Your task to perform on an android device: Open location settings Image 0: 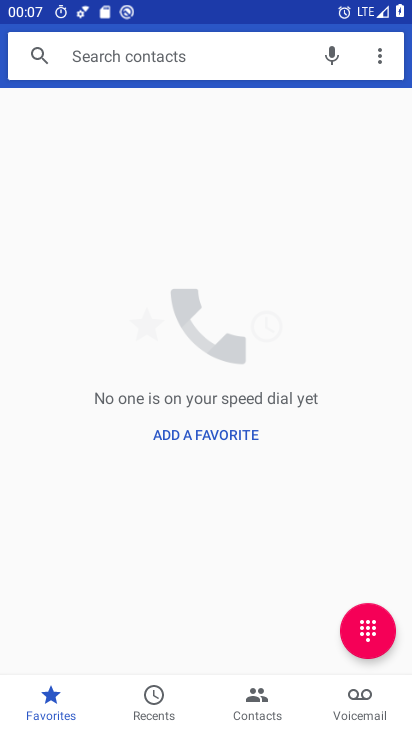
Step 0: press back button
Your task to perform on an android device: Open location settings Image 1: 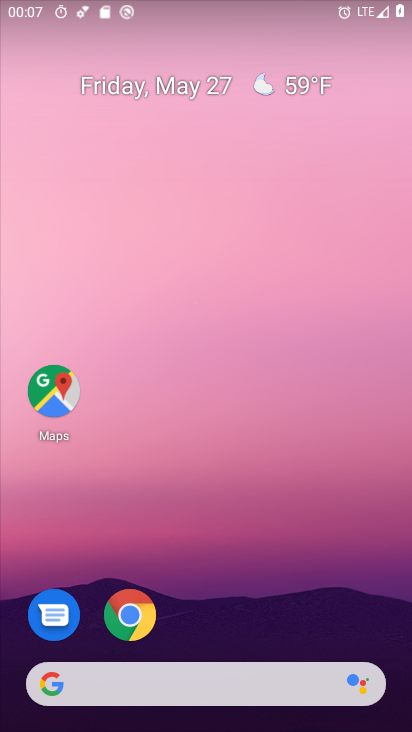
Step 1: drag from (286, 556) to (214, 4)
Your task to perform on an android device: Open location settings Image 2: 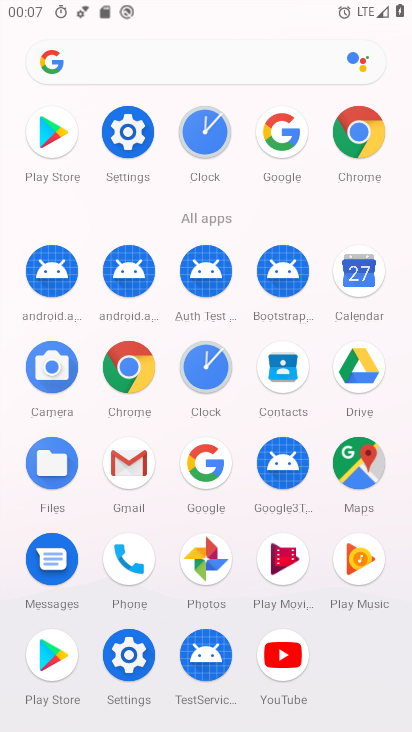
Step 2: click (125, 121)
Your task to perform on an android device: Open location settings Image 3: 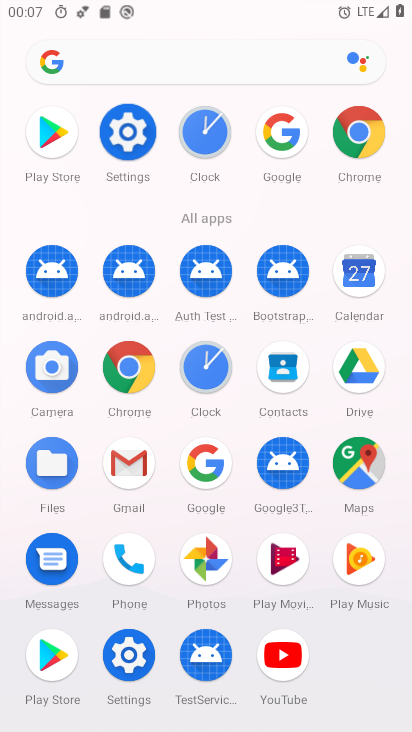
Step 3: click (126, 120)
Your task to perform on an android device: Open location settings Image 4: 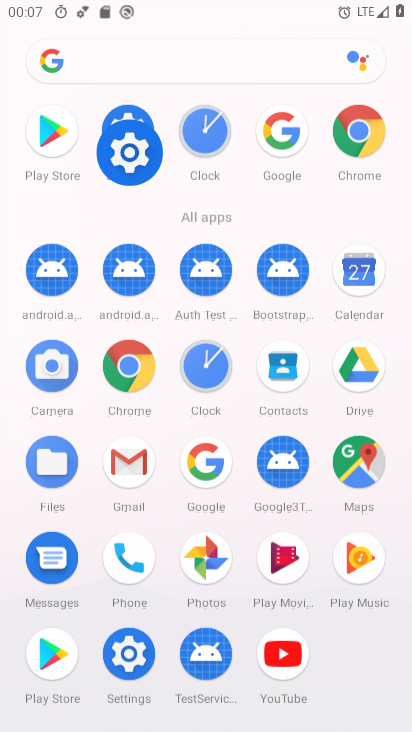
Step 4: click (126, 120)
Your task to perform on an android device: Open location settings Image 5: 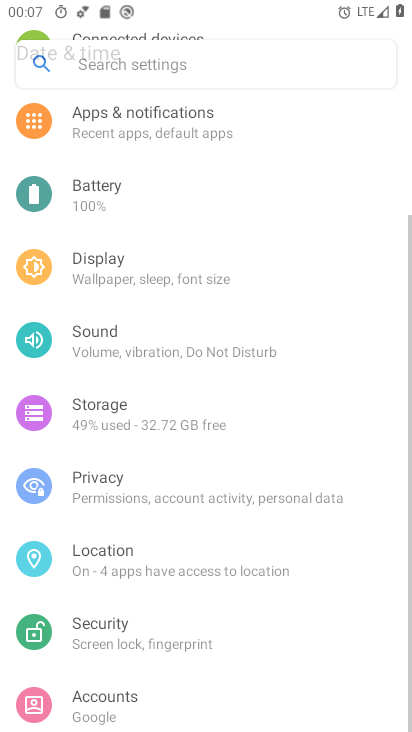
Step 5: click (135, 129)
Your task to perform on an android device: Open location settings Image 6: 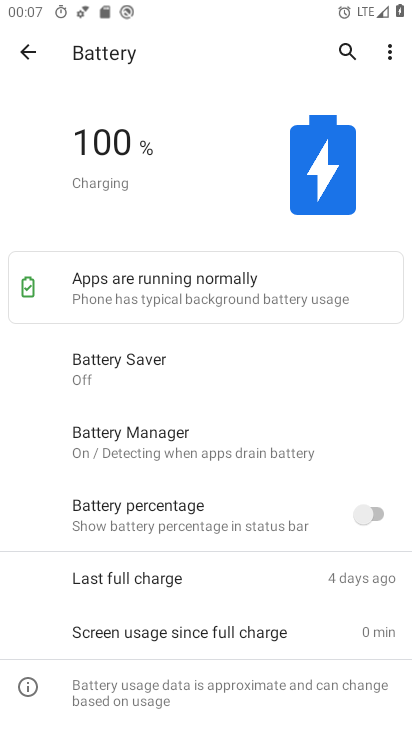
Step 6: click (21, 50)
Your task to perform on an android device: Open location settings Image 7: 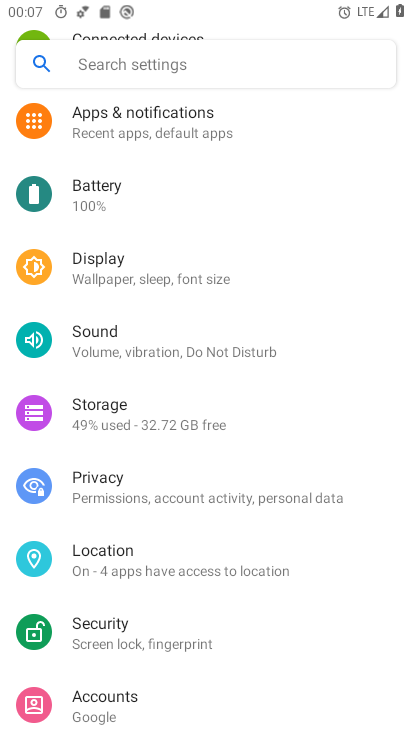
Step 7: click (131, 565)
Your task to perform on an android device: Open location settings Image 8: 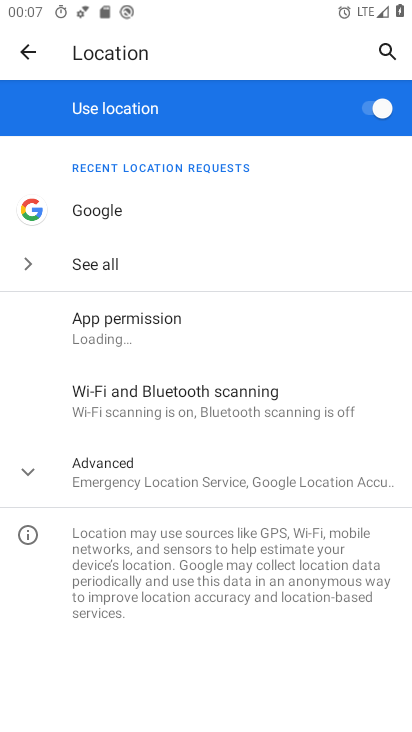
Step 8: task complete